Your task to perform on an android device: Go to accessibility settings Image 0: 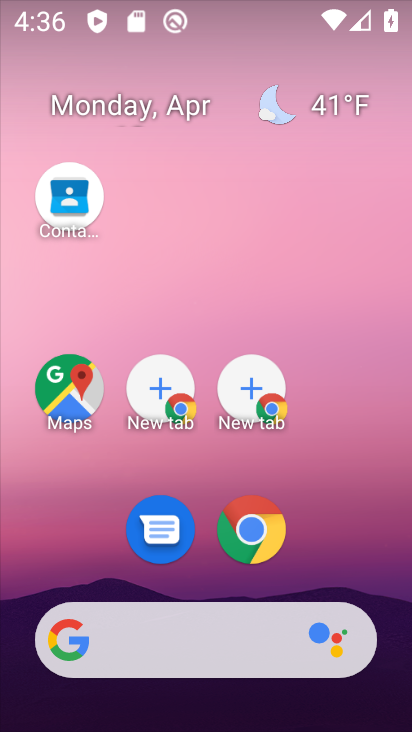
Step 0: drag from (220, 517) to (401, 0)
Your task to perform on an android device: Go to accessibility settings Image 1: 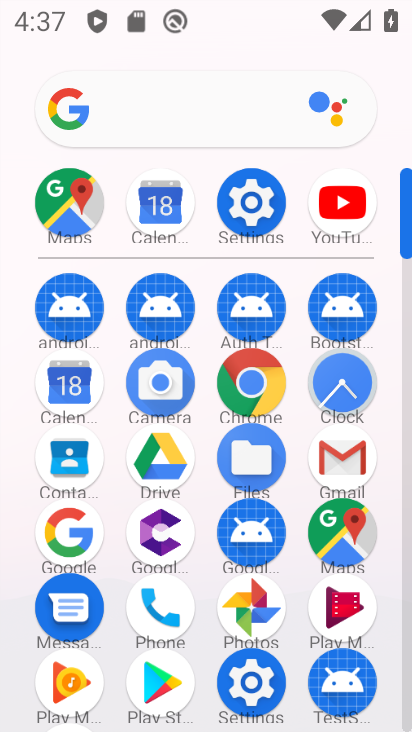
Step 1: click (256, 690)
Your task to perform on an android device: Go to accessibility settings Image 2: 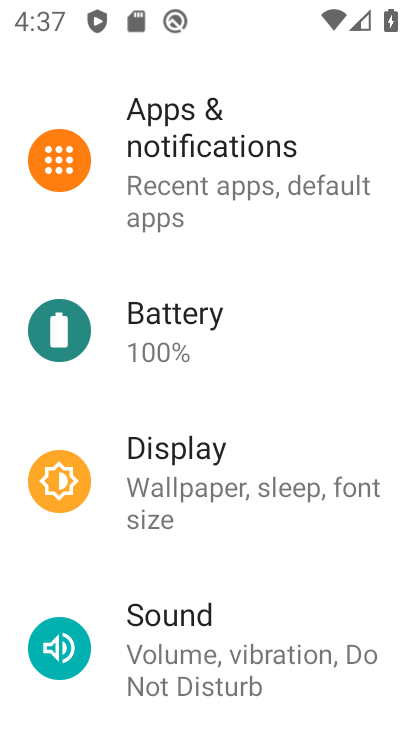
Step 2: drag from (245, 648) to (383, 12)
Your task to perform on an android device: Go to accessibility settings Image 3: 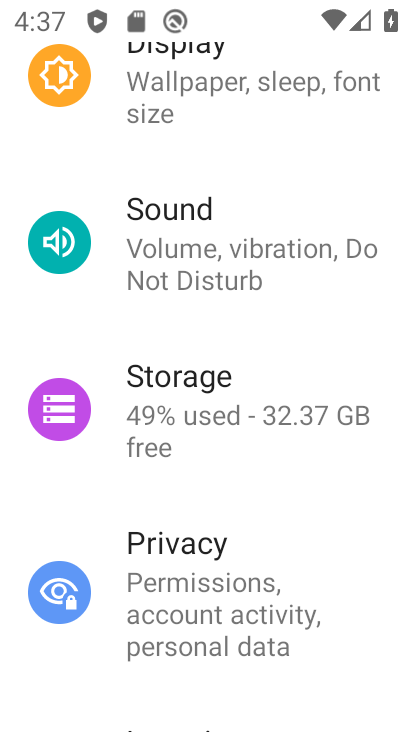
Step 3: drag from (223, 573) to (274, 128)
Your task to perform on an android device: Go to accessibility settings Image 4: 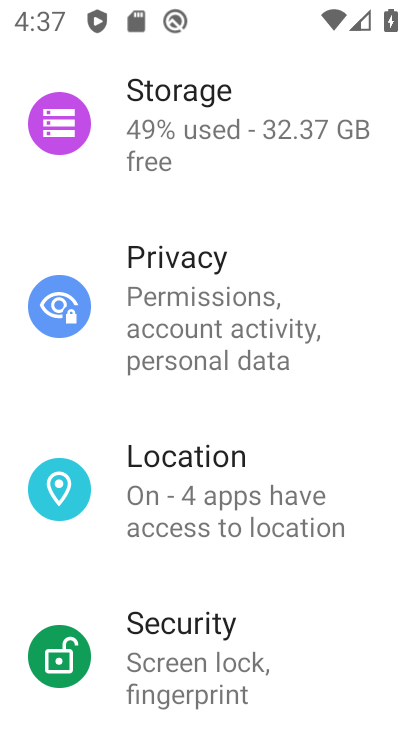
Step 4: drag from (190, 586) to (273, 0)
Your task to perform on an android device: Go to accessibility settings Image 5: 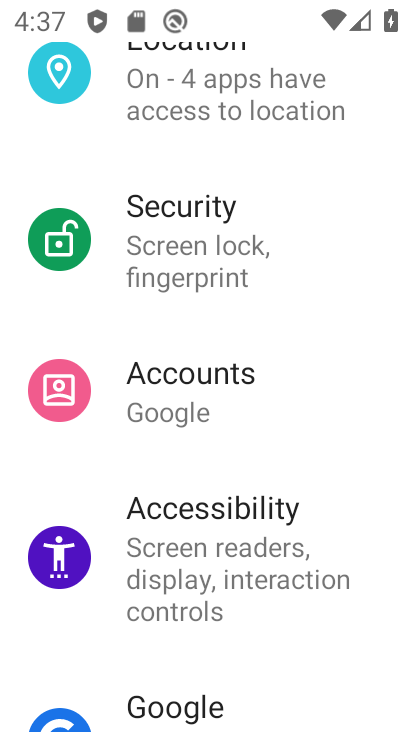
Step 5: click (213, 584)
Your task to perform on an android device: Go to accessibility settings Image 6: 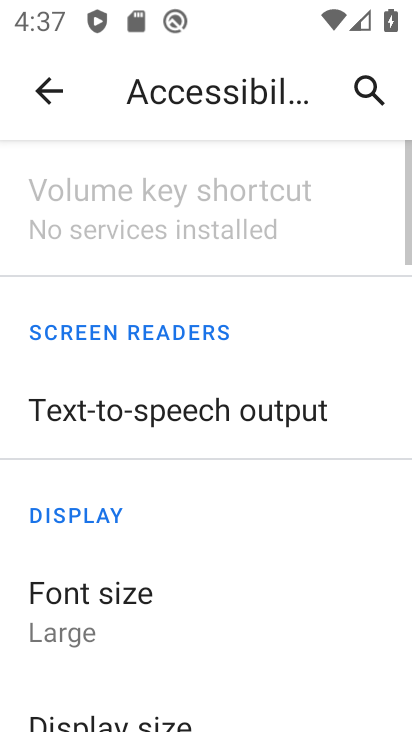
Step 6: task complete